Your task to perform on an android device: read, delete, or share a saved page in the chrome app Image 0: 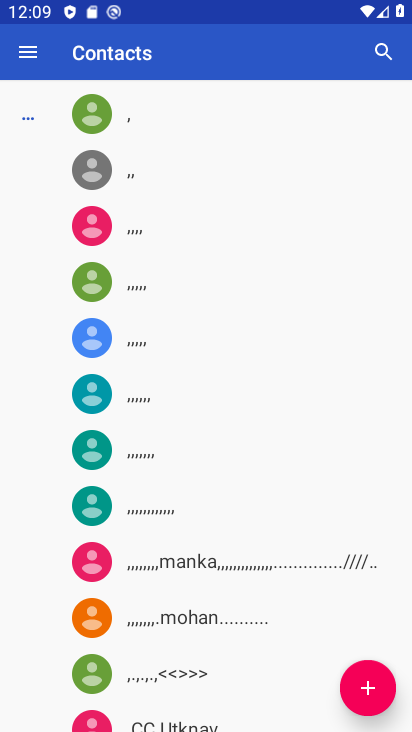
Step 0: press home button
Your task to perform on an android device: read, delete, or share a saved page in the chrome app Image 1: 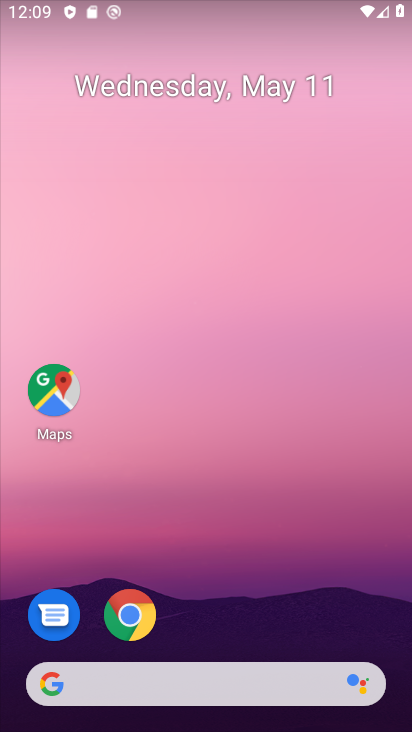
Step 1: click (132, 615)
Your task to perform on an android device: read, delete, or share a saved page in the chrome app Image 2: 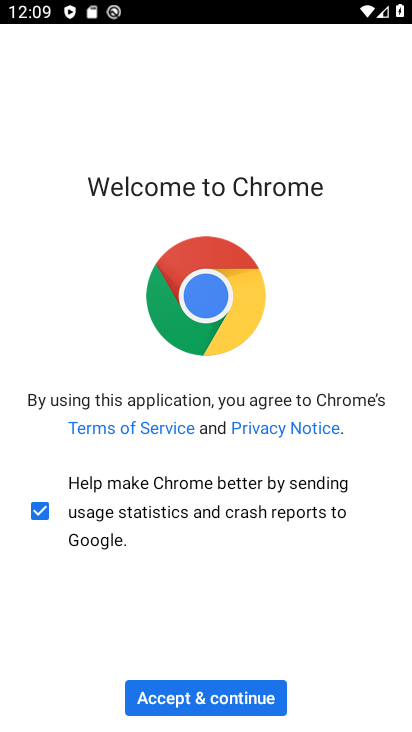
Step 2: click (216, 690)
Your task to perform on an android device: read, delete, or share a saved page in the chrome app Image 3: 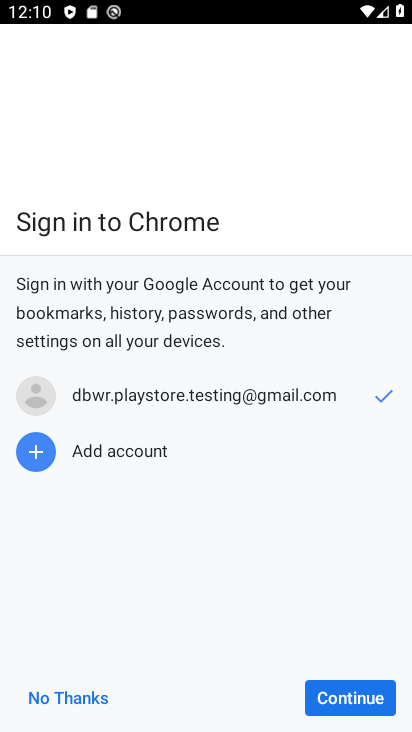
Step 3: click (338, 700)
Your task to perform on an android device: read, delete, or share a saved page in the chrome app Image 4: 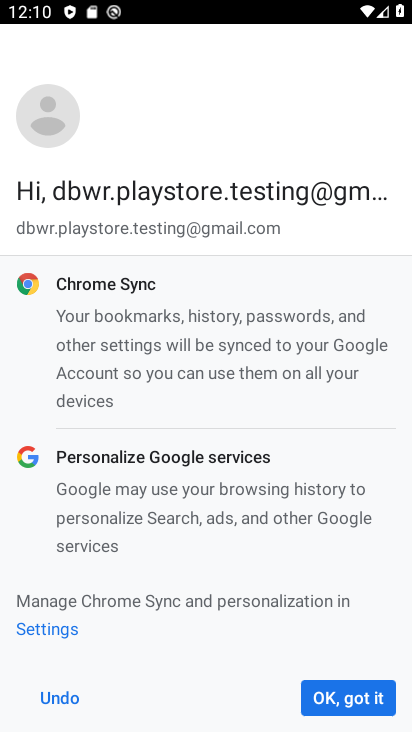
Step 4: click (310, 691)
Your task to perform on an android device: read, delete, or share a saved page in the chrome app Image 5: 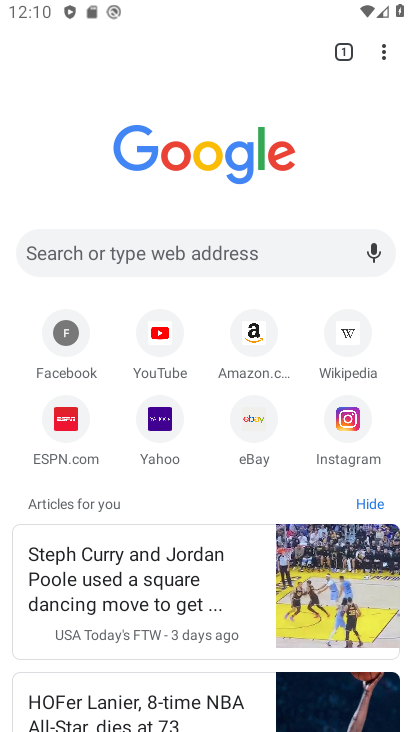
Step 5: click (390, 50)
Your task to perform on an android device: read, delete, or share a saved page in the chrome app Image 6: 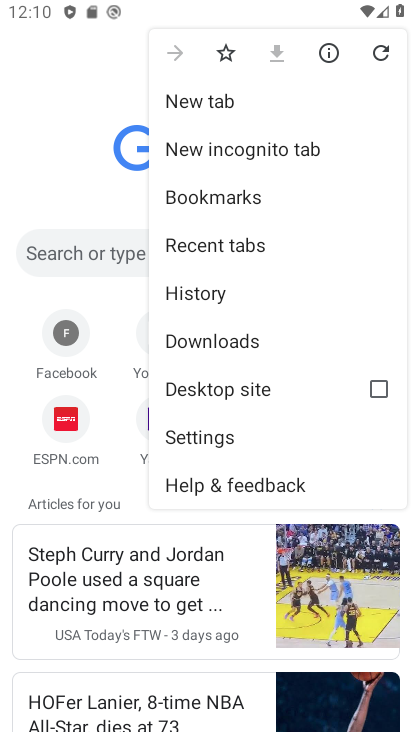
Step 6: click (252, 333)
Your task to perform on an android device: read, delete, or share a saved page in the chrome app Image 7: 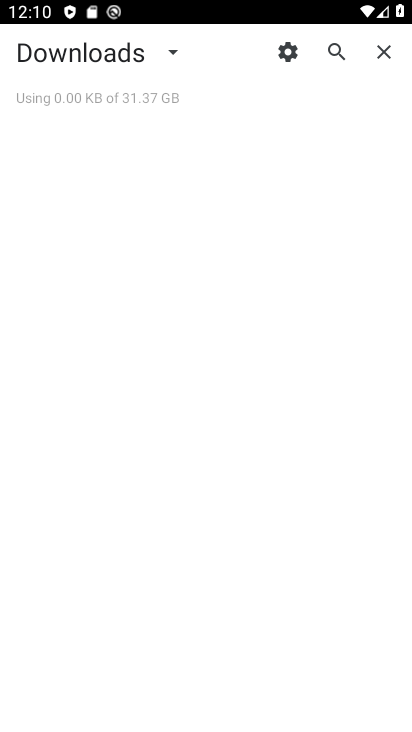
Step 7: task complete